Your task to perform on an android device: set the timer Image 0: 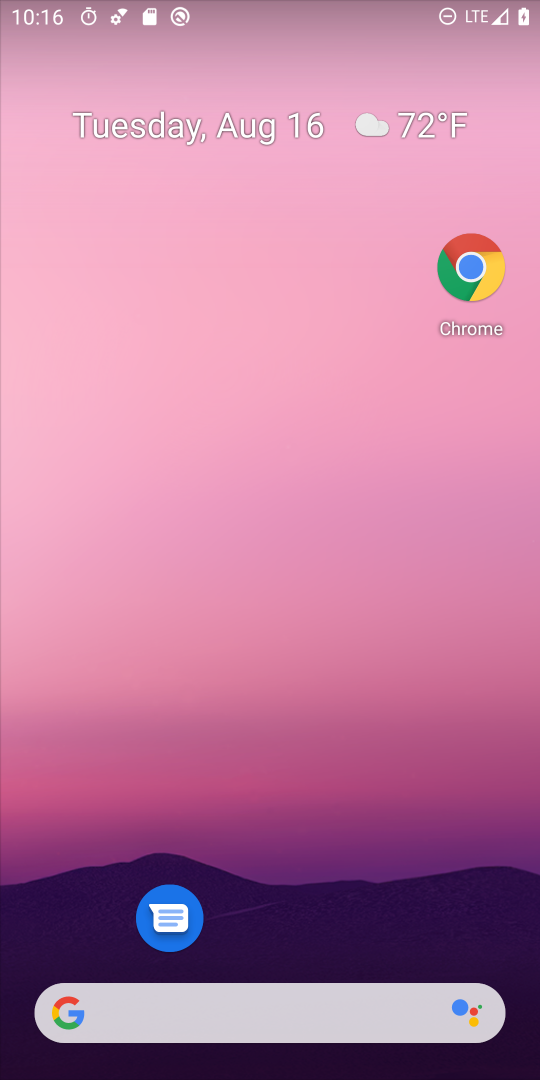
Step 0: drag from (388, 953) to (392, 302)
Your task to perform on an android device: set the timer Image 1: 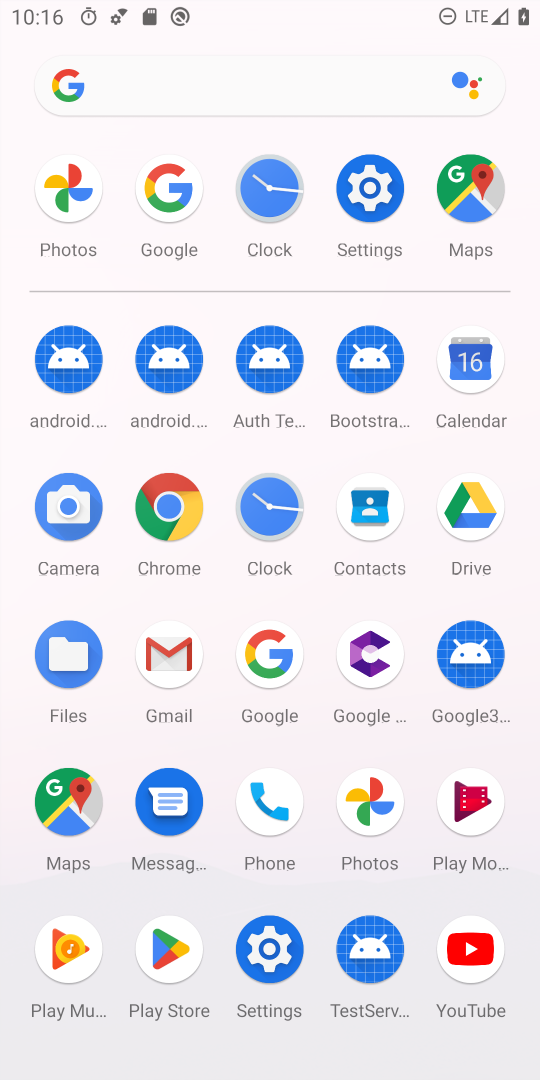
Step 1: click (263, 240)
Your task to perform on an android device: set the timer Image 2: 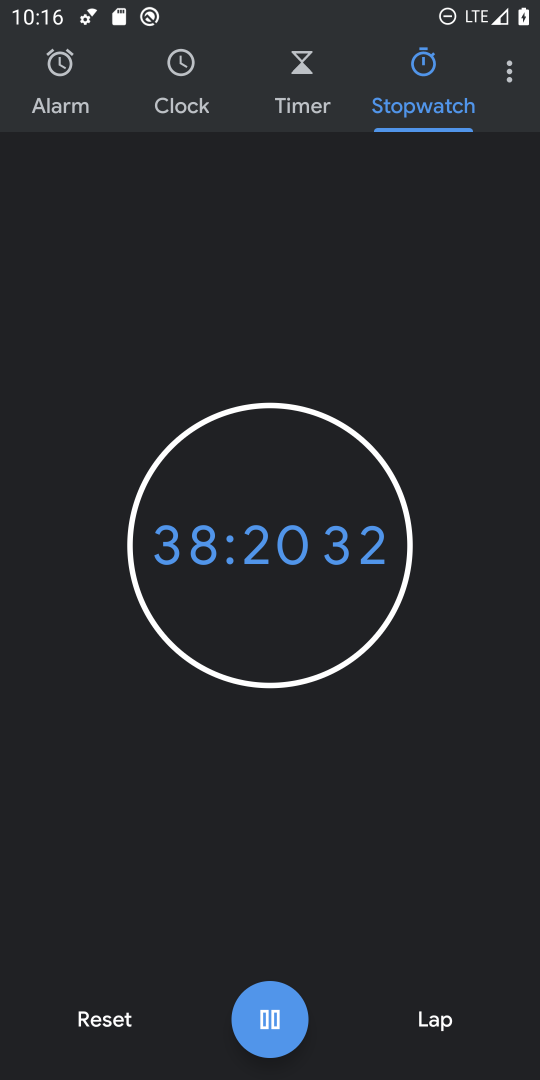
Step 2: click (294, 108)
Your task to perform on an android device: set the timer Image 3: 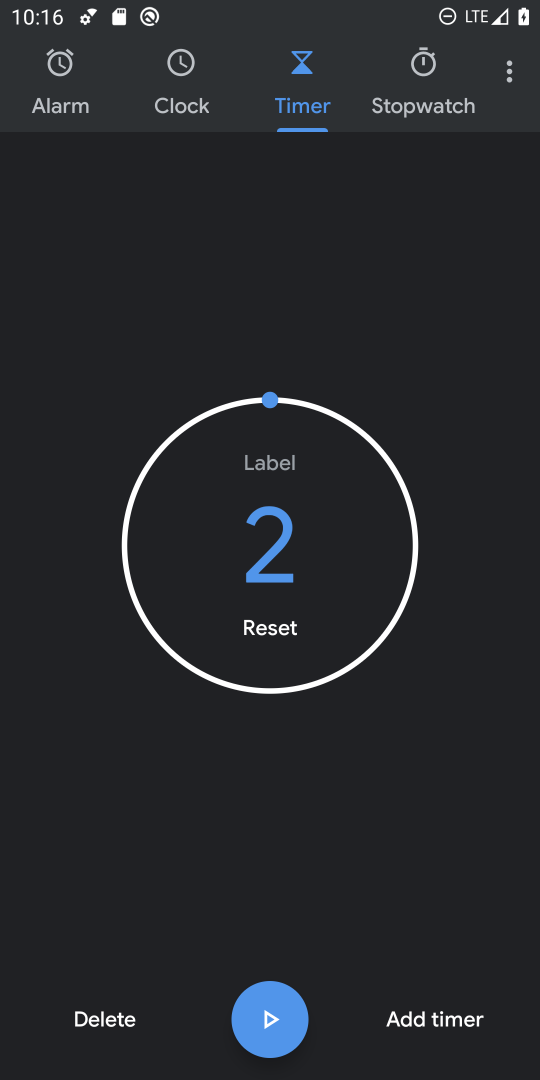
Step 3: click (275, 1043)
Your task to perform on an android device: set the timer Image 4: 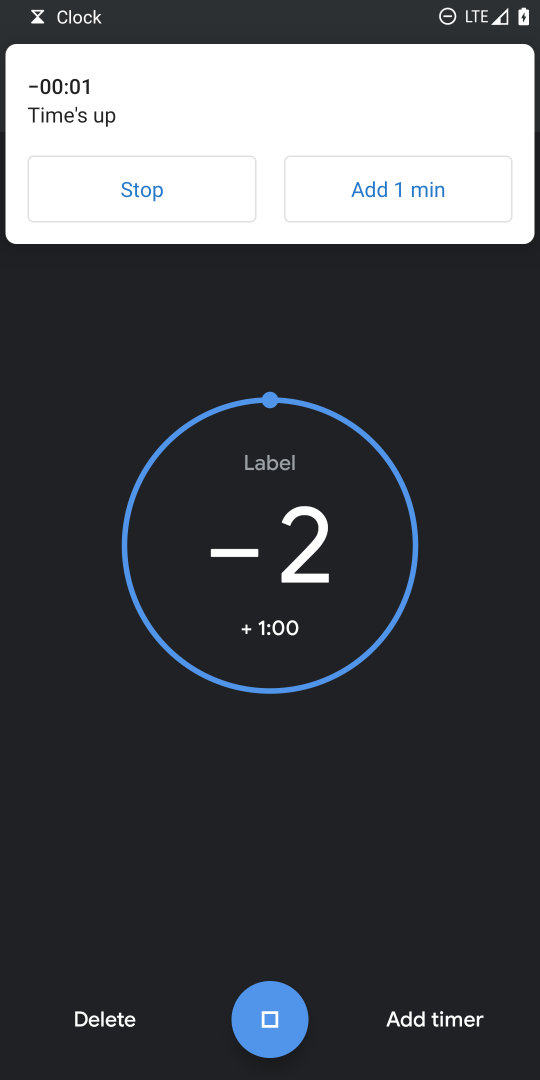
Step 4: task complete